Your task to perform on an android device: change timer sound Image 0: 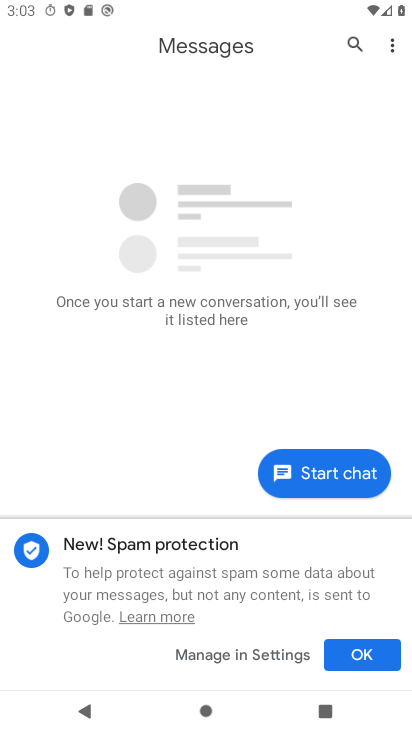
Step 0: press home button
Your task to perform on an android device: change timer sound Image 1: 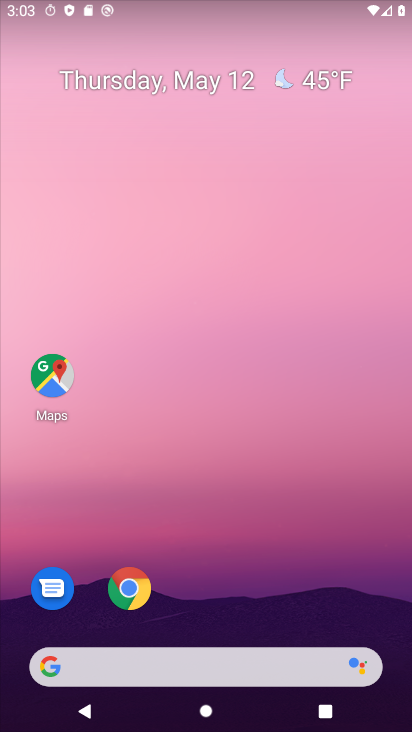
Step 1: drag from (236, 488) to (330, 136)
Your task to perform on an android device: change timer sound Image 2: 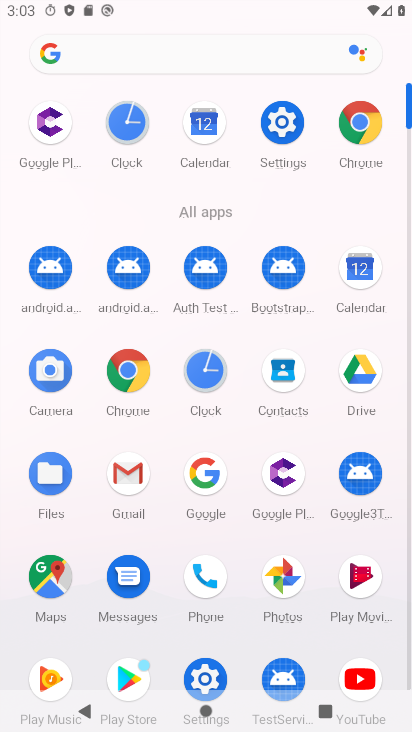
Step 2: click (139, 160)
Your task to perform on an android device: change timer sound Image 3: 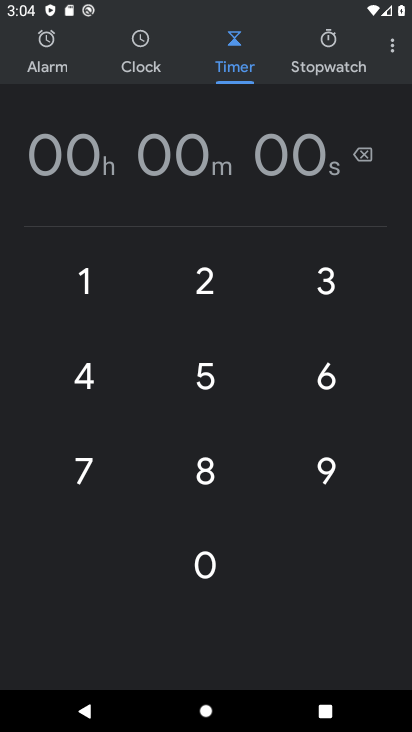
Step 3: click (391, 47)
Your task to perform on an android device: change timer sound Image 4: 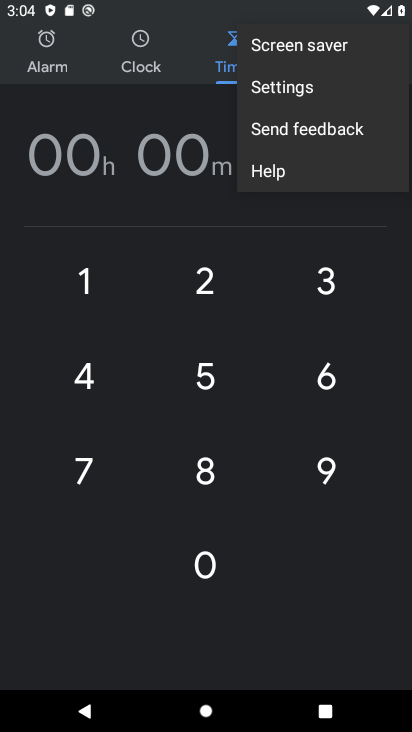
Step 4: click (231, 97)
Your task to perform on an android device: change timer sound Image 5: 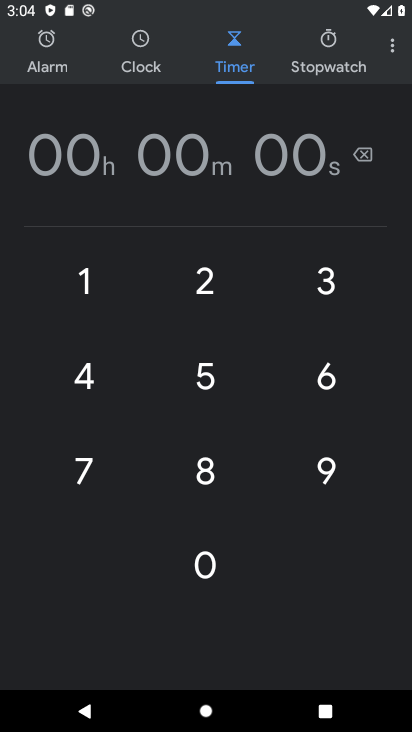
Step 5: click (253, 96)
Your task to perform on an android device: change timer sound Image 6: 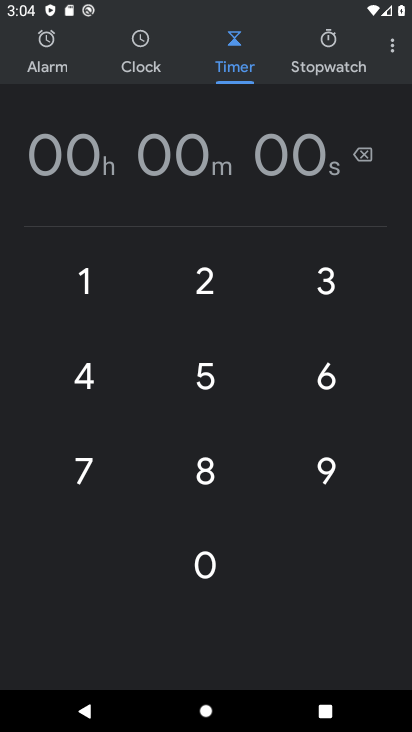
Step 6: click (398, 45)
Your task to perform on an android device: change timer sound Image 7: 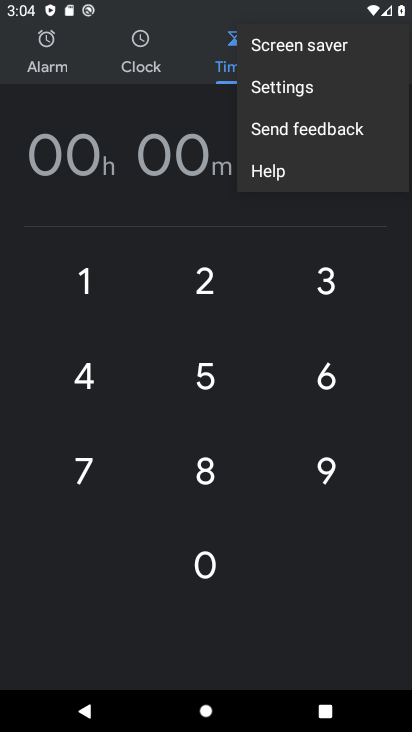
Step 7: click (289, 93)
Your task to perform on an android device: change timer sound Image 8: 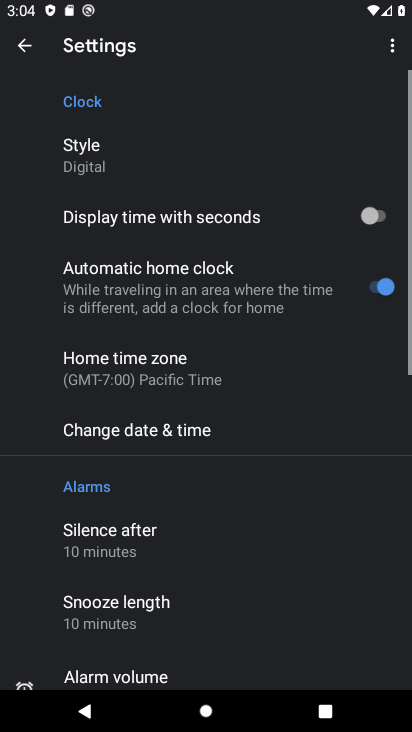
Step 8: drag from (210, 542) to (246, 169)
Your task to perform on an android device: change timer sound Image 9: 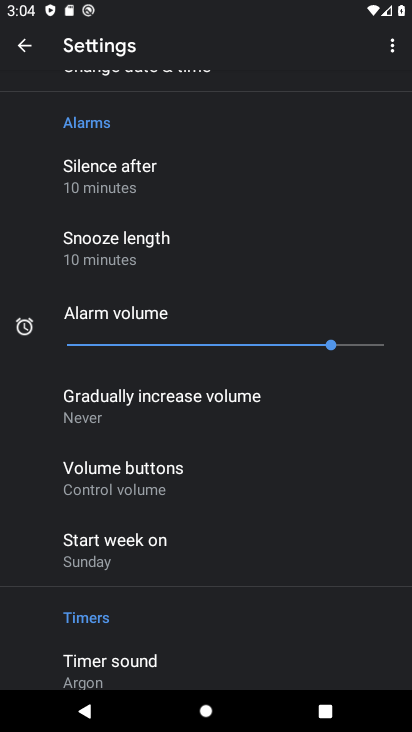
Step 9: click (159, 676)
Your task to perform on an android device: change timer sound Image 10: 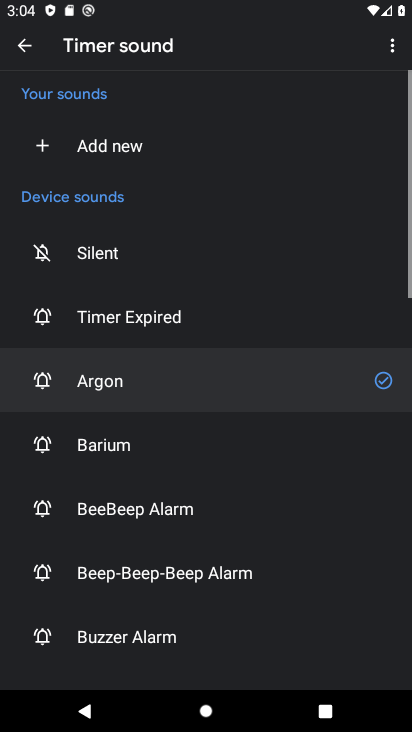
Step 10: click (82, 514)
Your task to perform on an android device: change timer sound Image 11: 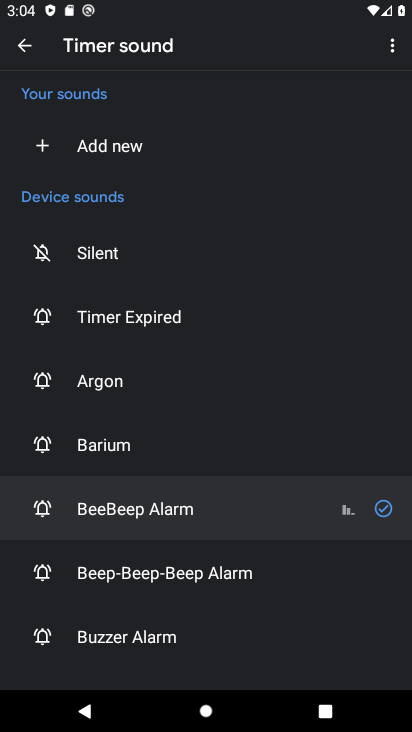
Step 11: task complete